Your task to perform on an android device: allow cookies in the chrome app Image 0: 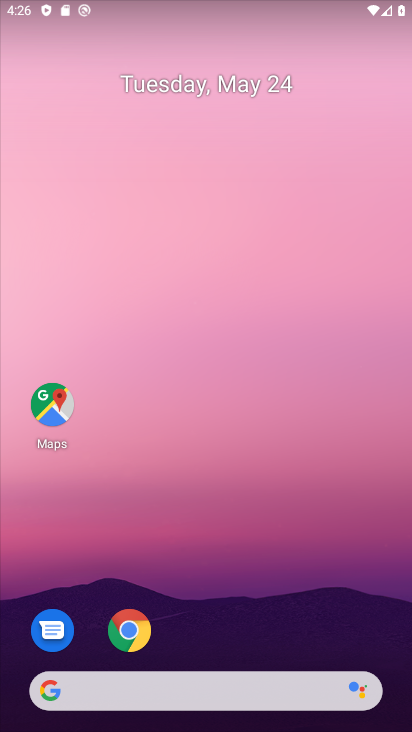
Step 0: click (124, 639)
Your task to perform on an android device: allow cookies in the chrome app Image 1: 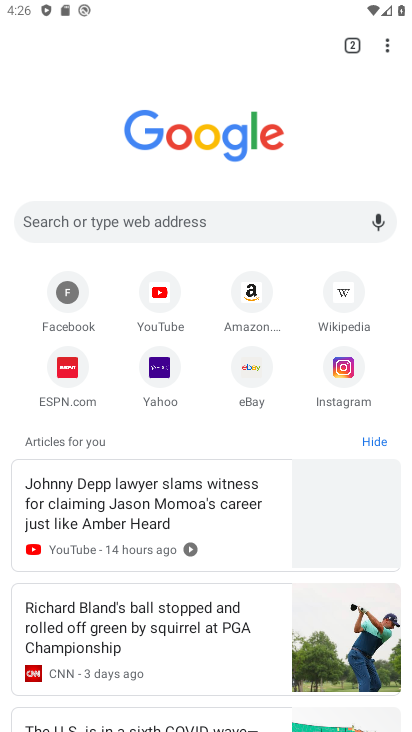
Step 1: click (393, 47)
Your task to perform on an android device: allow cookies in the chrome app Image 2: 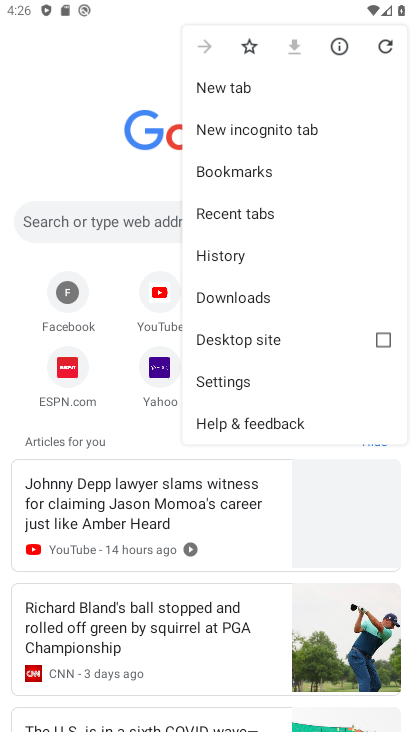
Step 2: click (227, 378)
Your task to perform on an android device: allow cookies in the chrome app Image 3: 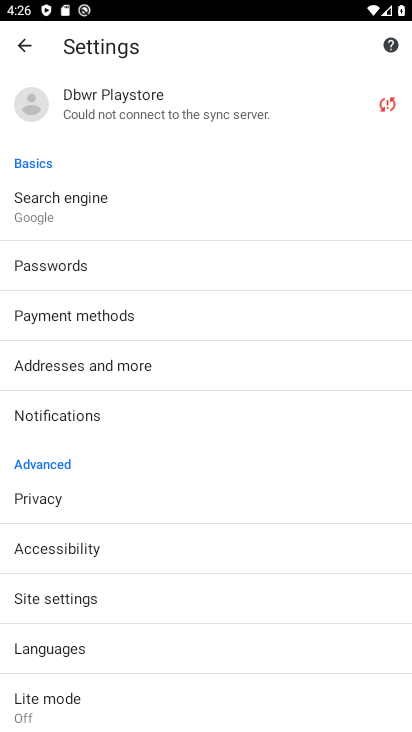
Step 3: drag from (84, 648) to (165, 136)
Your task to perform on an android device: allow cookies in the chrome app Image 4: 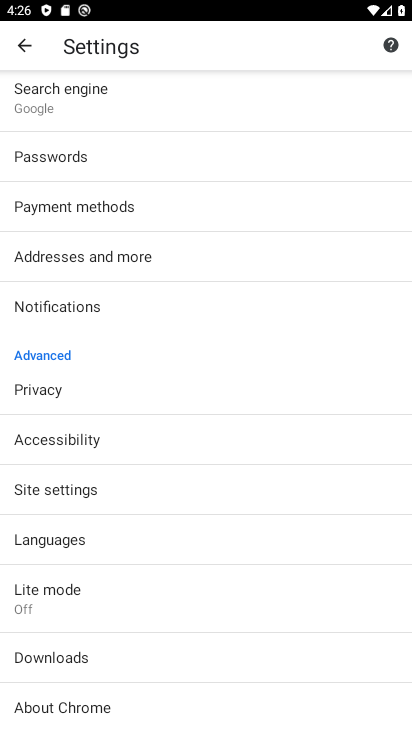
Step 4: click (73, 477)
Your task to perform on an android device: allow cookies in the chrome app Image 5: 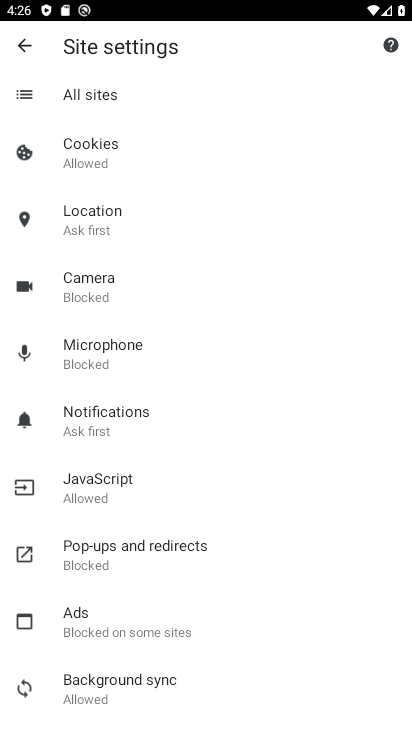
Step 5: click (121, 168)
Your task to perform on an android device: allow cookies in the chrome app Image 6: 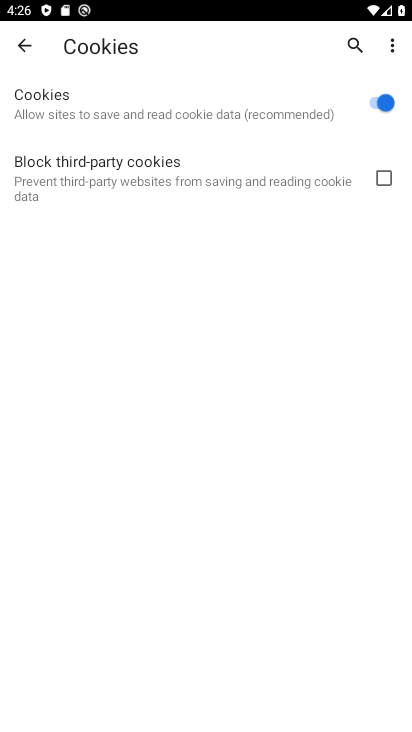
Step 6: task complete